Your task to perform on an android device: Search for pizza restaurants on Maps Image 0: 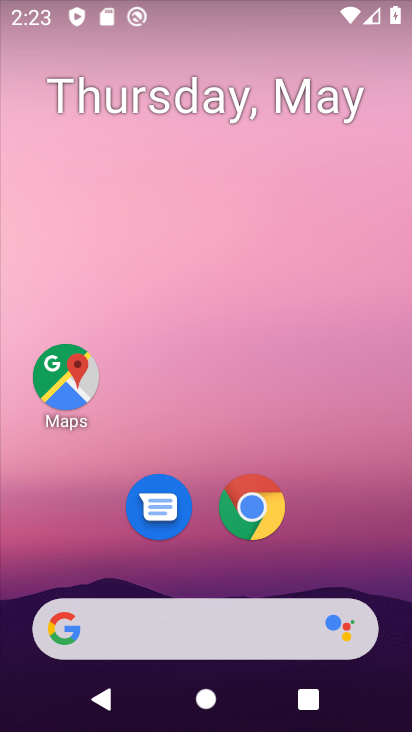
Step 0: click (91, 391)
Your task to perform on an android device: Search for pizza restaurants on Maps Image 1: 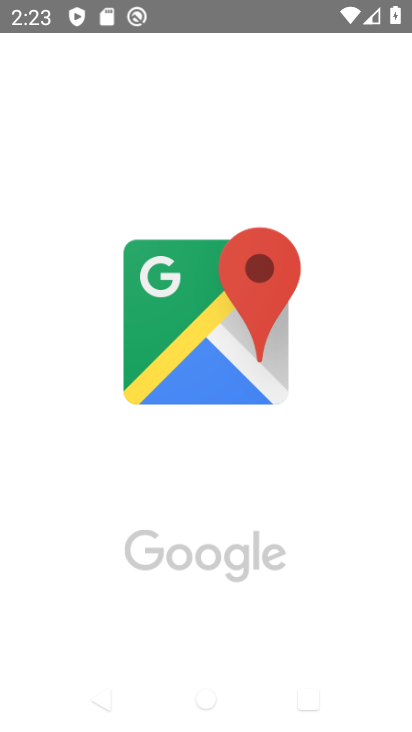
Step 1: drag from (234, 625) to (246, 540)
Your task to perform on an android device: Search for pizza restaurants on Maps Image 2: 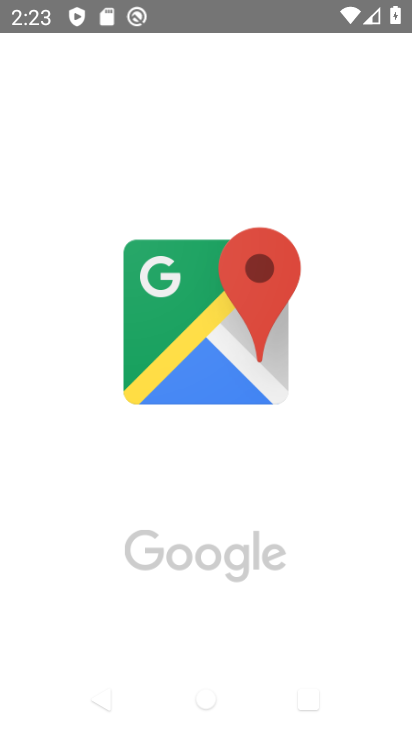
Step 2: drag from (242, 467) to (194, 471)
Your task to perform on an android device: Search for pizza restaurants on Maps Image 3: 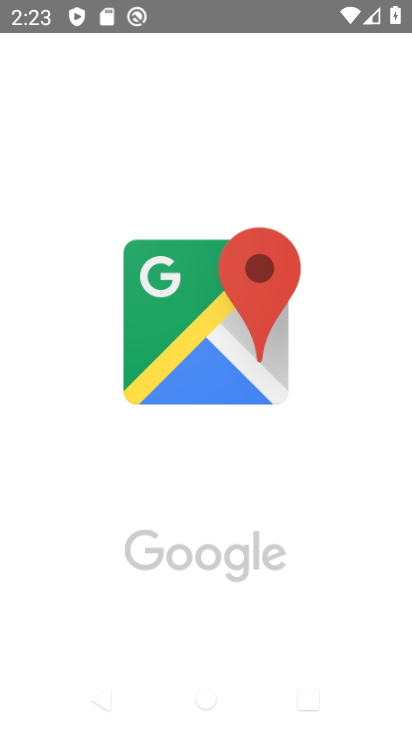
Step 3: click (172, 459)
Your task to perform on an android device: Search for pizza restaurants on Maps Image 4: 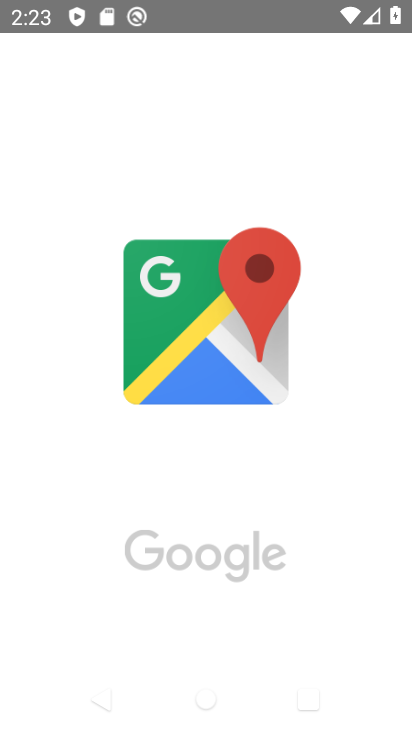
Step 4: click (172, 459)
Your task to perform on an android device: Search for pizza restaurants on Maps Image 5: 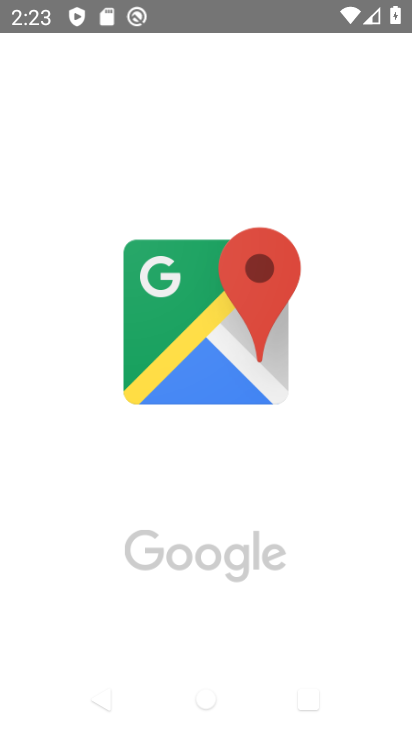
Step 5: click (172, 459)
Your task to perform on an android device: Search for pizza restaurants on Maps Image 6: 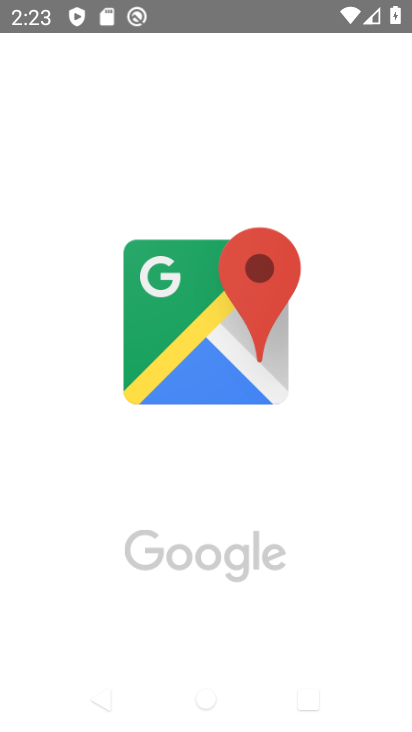
Step 6: task complete